Your task to perform on an android device: Open the calendar and show me this week's events Image 0: 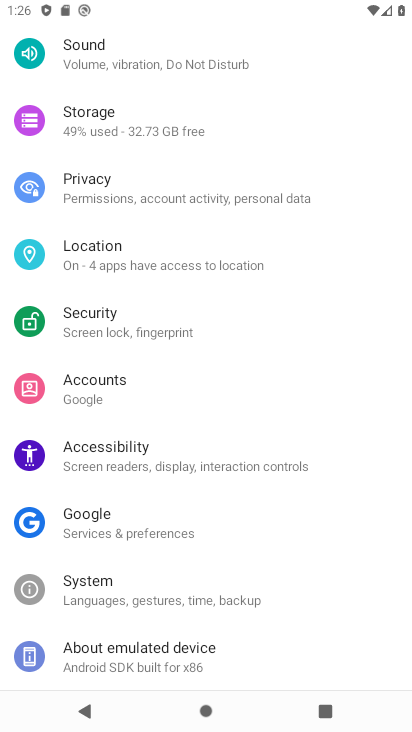
Step 0: drag from (325, 596) to (245, 43)
Your task to perform on an android device: Open the calendar and show me this week's events Image 1: 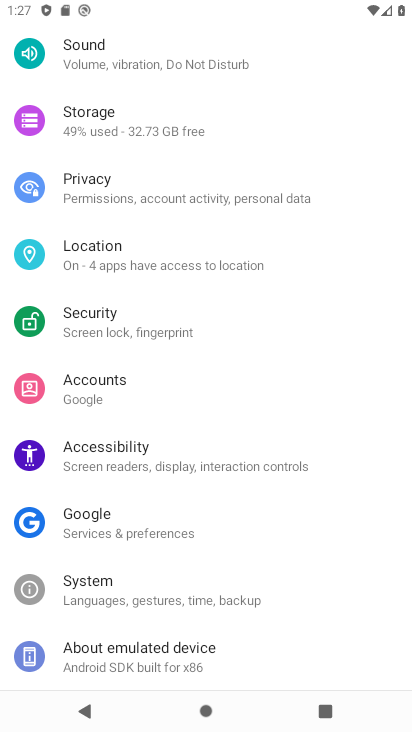
Step 1: press home button
Your task to perform on an android device: Open the calendar and show me this week's events Image 2: 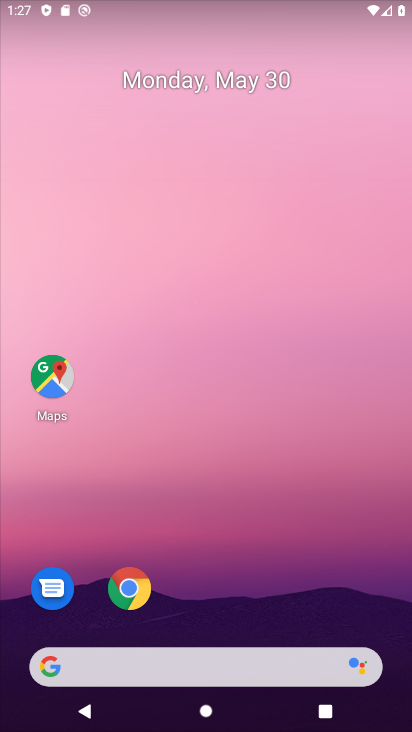
Step 2: drag from (266, 385) to (219, 0)
Your task to perform on an android device: Open the calendar and show me this week's events Image 3: 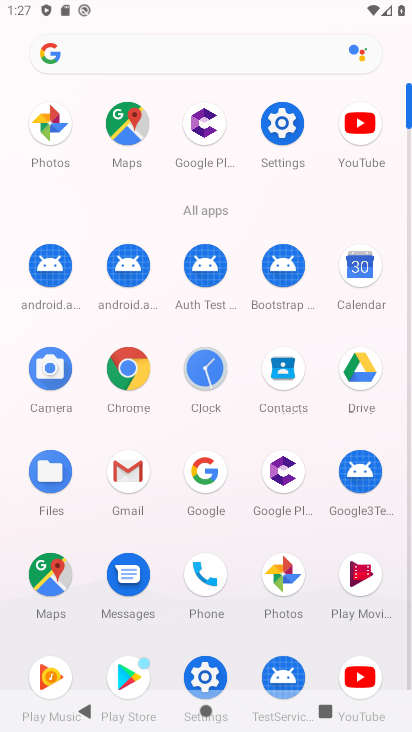
Step 3: click (346, 272)
Your task to perform on an android device: Open the calendar and show me this week's events Image 4: 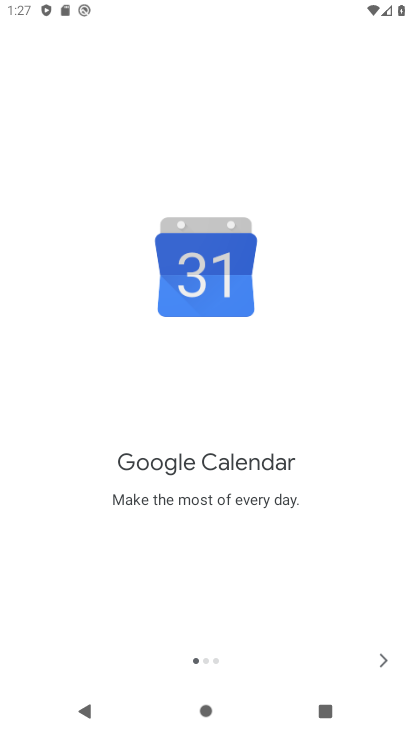
Step 4: click (387, 669)
Your task to perform on an android device: Open the calendar and show me this week's events Image 5: 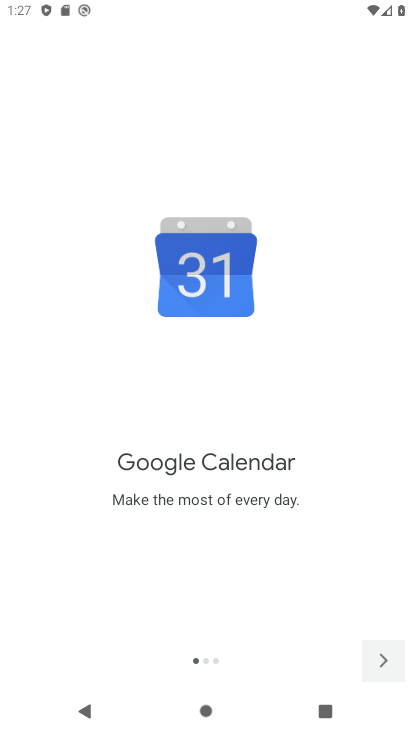
Step 5: click (387, 666)
Your task to perform on an android device: Open the calendar and show me this week's events Image 6: 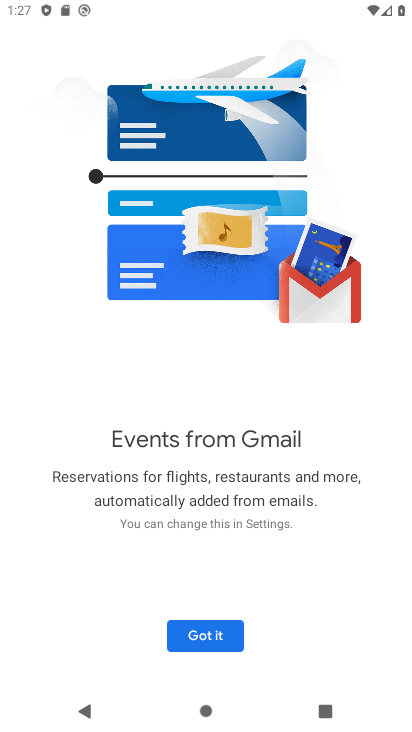
Step 6: click (205, 638)
Your task to perform on an android device: Open the calendar and show me this week's events Image 7: 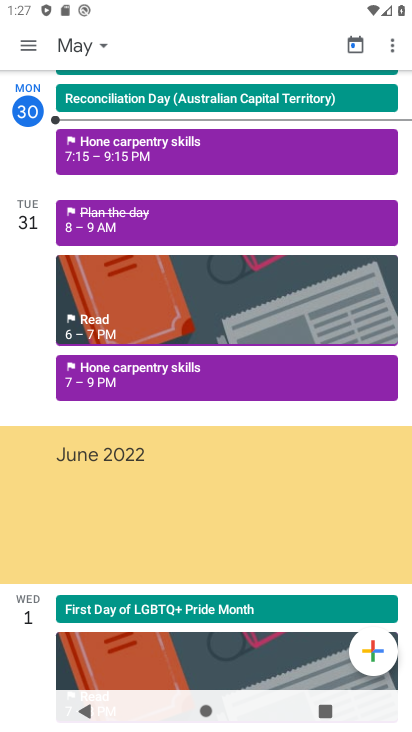
Step 7: click (89, 43)
Your task to perform on an android device: Open the calendar and show me this week's events Image 8: 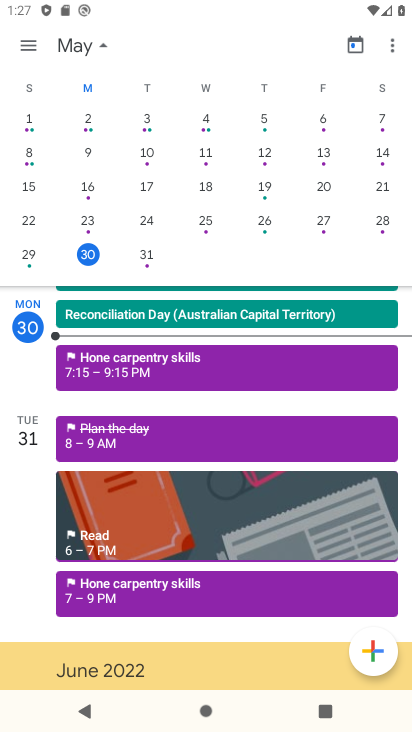
Step 8: click (11, 43)
Your task to perform on an android device: Open the calendar and show me this week's events Image 9: 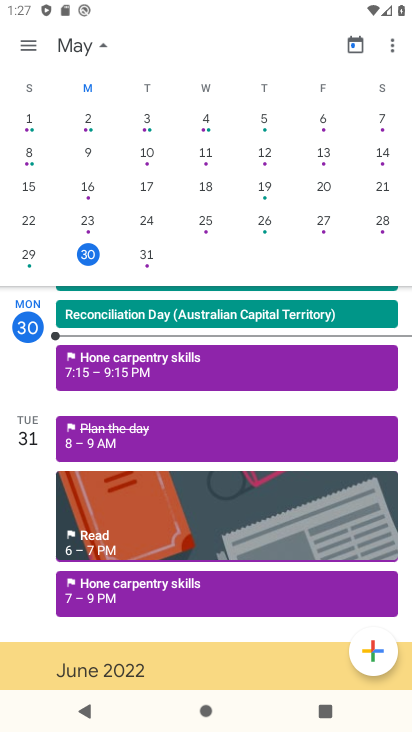
Step 9: click (24, 46)
Your task to perform on an android device: Open the calendar and show me this week's events Image 10: 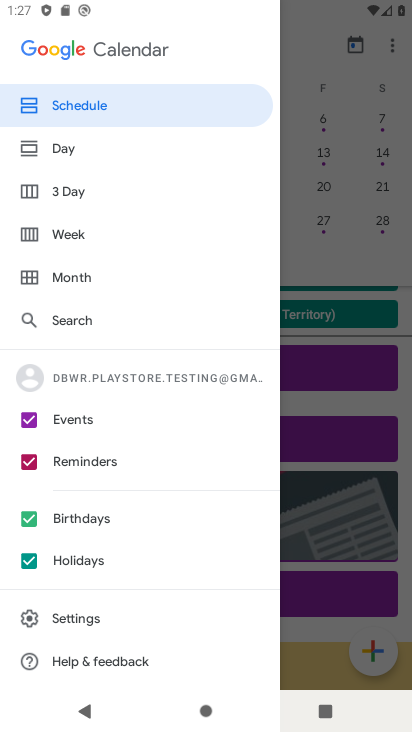
Step 10: click (65, 236)
Your task to perform on an android device: Open the calendar and show me this week's events Image 11: 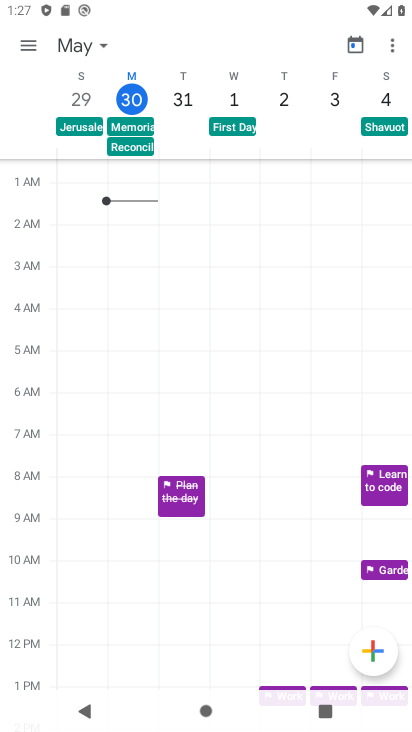
Step 11: click (98, 41)
Your task to perform on an android device: Open the calendar and show me this week's events Image 12: 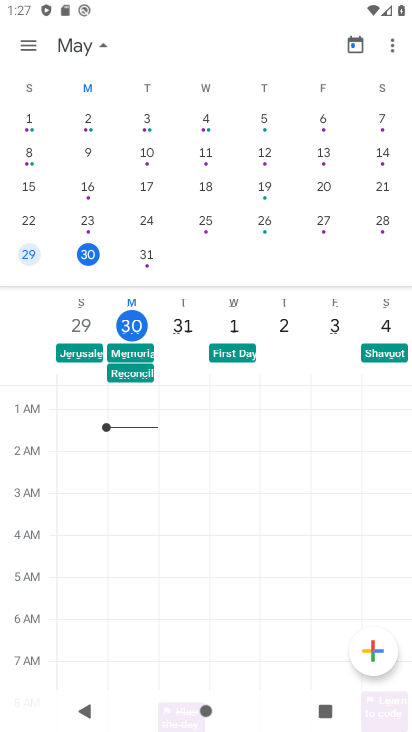
Step 12: task complete